Your task to perform on an android device: visit the assistant section in the google photos Image 0: 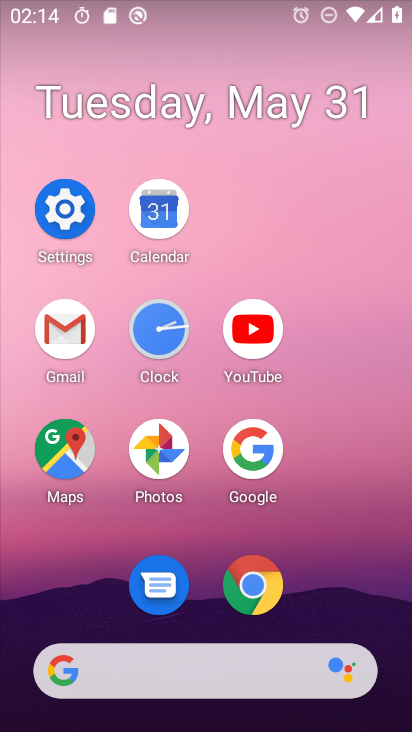
Step 0: click (162, 462)
Your task to perform on an android device: visit the assistant section in the google photos Image 1: 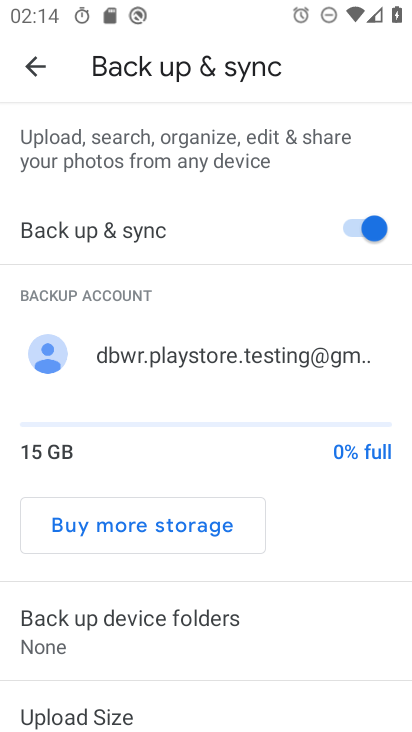
Step 1: click (22, 75)
Your task to perform on an android device: visit the assistant section in the google photos Image 2: 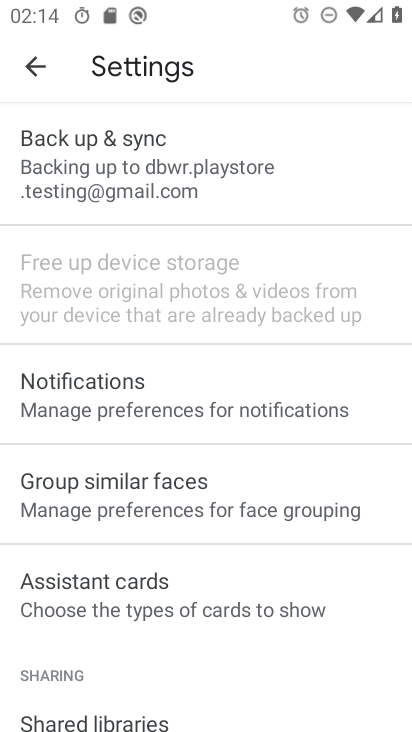
Step 2: click (43, 69)
Your task to perform on an android device: visit the assistant section in the google photos Image 3: 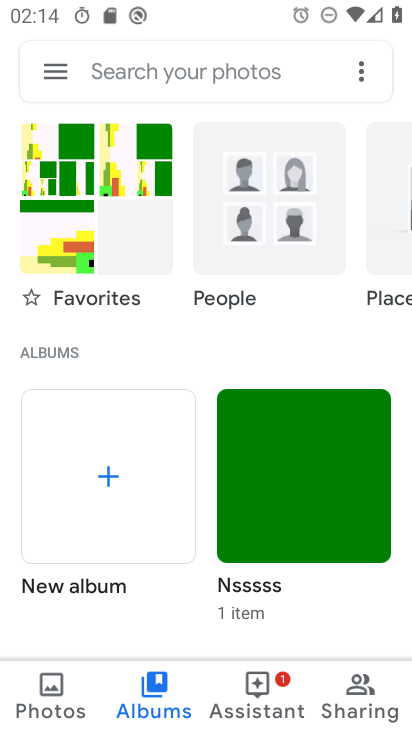
Step 3: click (265, 688)
Your task to perform on an android device: visit the assistant section in the google photos Image 4: 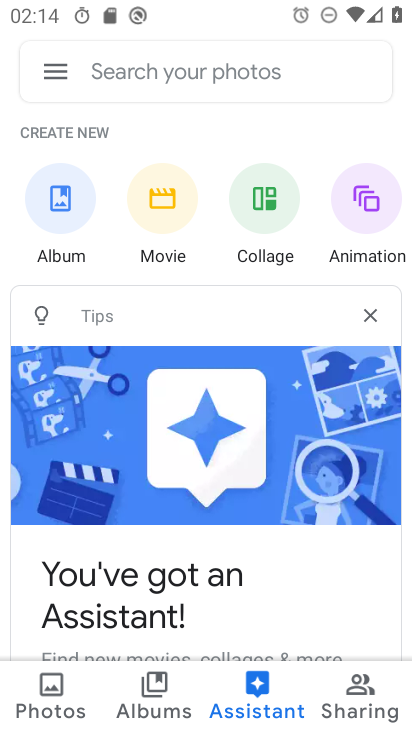
Step 4: task complete